Your task to perform on an android device: Open Google Chrome Image 0: 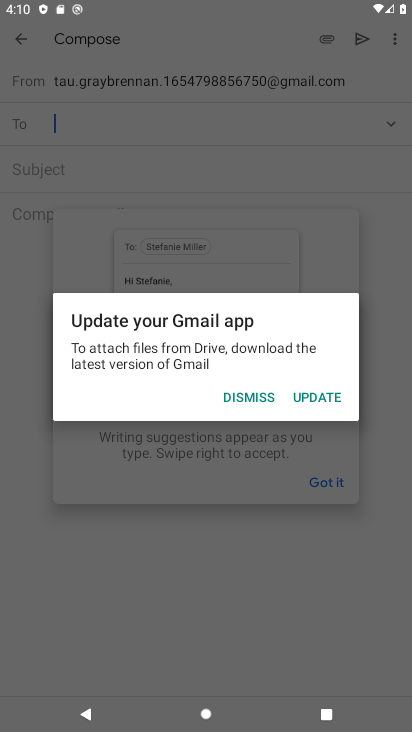
Step 0: press home button
Your task to perform on an android device: Open Google Chrome Image 1: 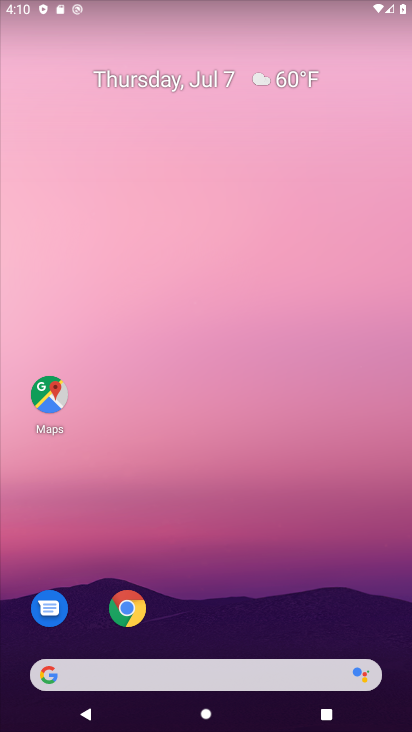
Step 1: click (116, 602)
Your task to perform on an android device: Open Google Chrome Image 2: 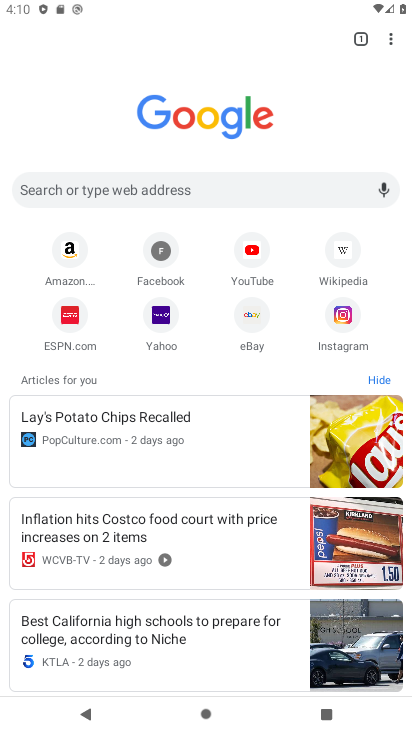
Step 2: task complete